Your task to perform on an android device: Open the calendar app, open the side menu, and click the "Day" option Image 0: 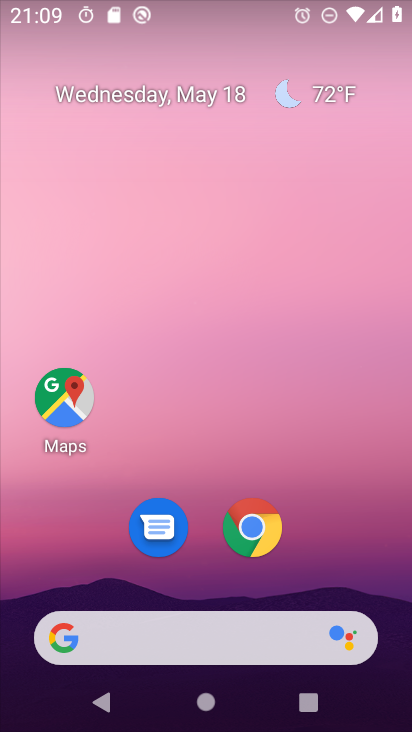
Step 0: click (363, 568)
Your task to perform on an android device: Open the calendar app, open the side menu, and click the "Day" option Image 1: 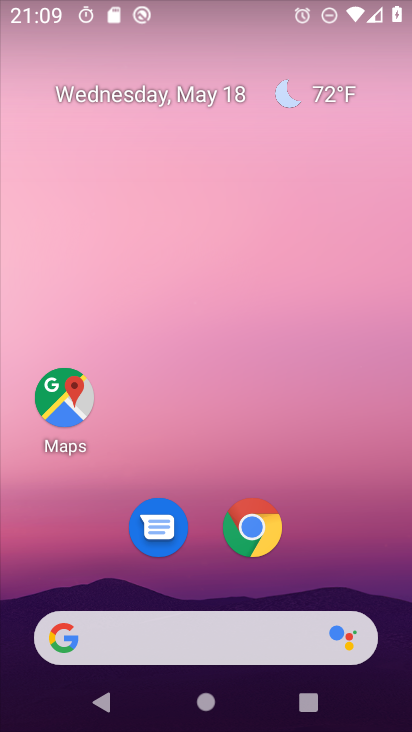
Step 1: drag from (394, 677) to (365, 258)
Your task to perform on an android device: Open the calendar app, open the side menu, and click the "Day" option Image 2: 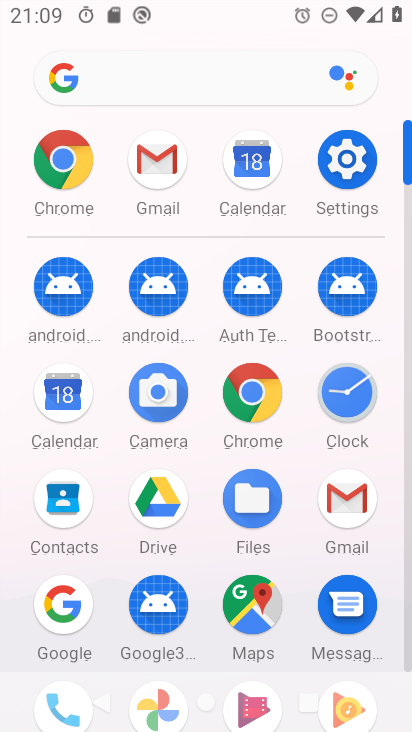
Step 2: click (68, 400)
Your task to perform on an android device: Open the calendar app, open the side menu, and click the "Day" option Image 3: 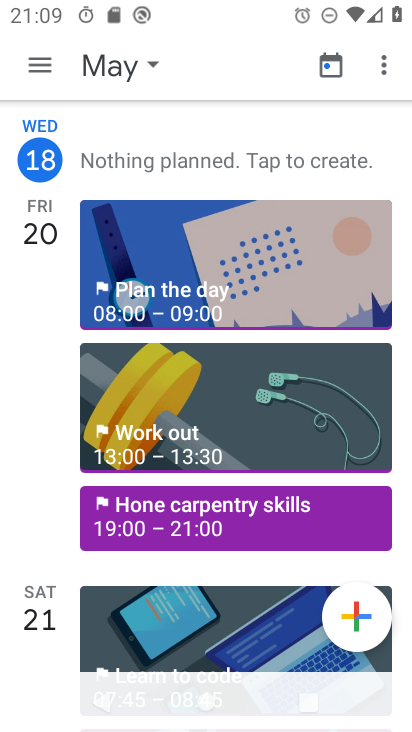
Step 3: click (37, 58)
Your task to perform on an android device: Open the calendar app, open the side menu, and click the "Day" option Image 4: 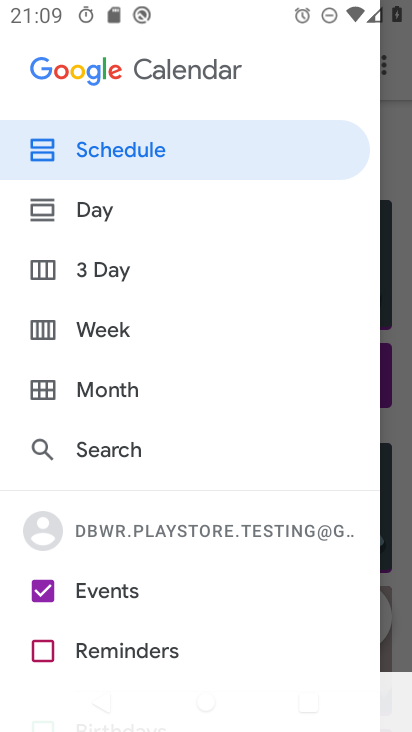
Step 4: click (94, 215)
Your task to perform on an android device: Open the calendar app, open the side menu, and click the "Day" option Image 5: 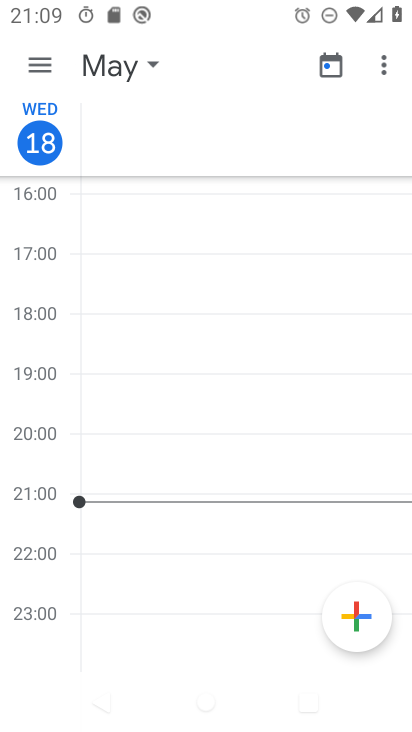
Step 5: task complete